Your task to perform on an android device: Open location settings Image 0: 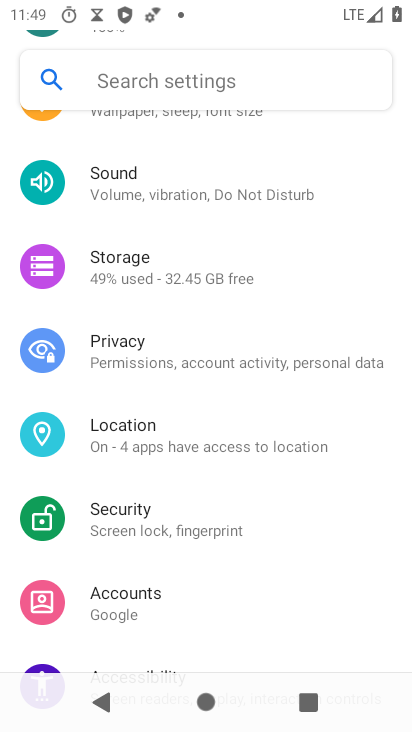
Step 0: click (189, 433)
Your task to perform on an android device: Open location settings Image 1: 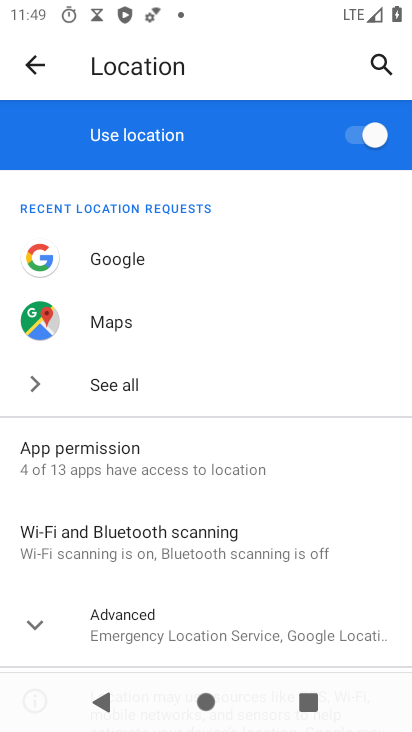
Step 1: task complete